Your task to perform on an android device: open app "Google Drive" (install if not already installed) Image 0: 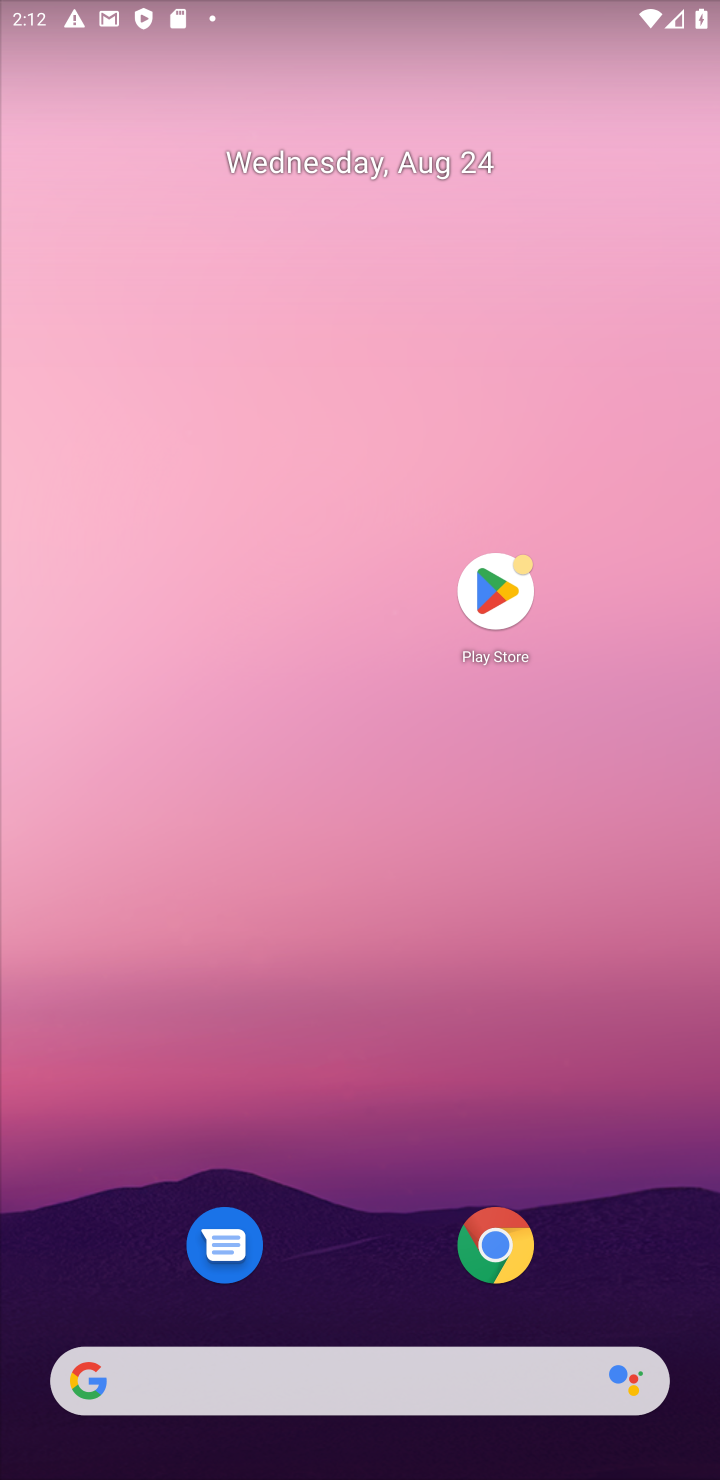
Step 0: click (508, 592)
Your task to perform on an android device: open app "Google Drive" (install if not already installed) Image 1: 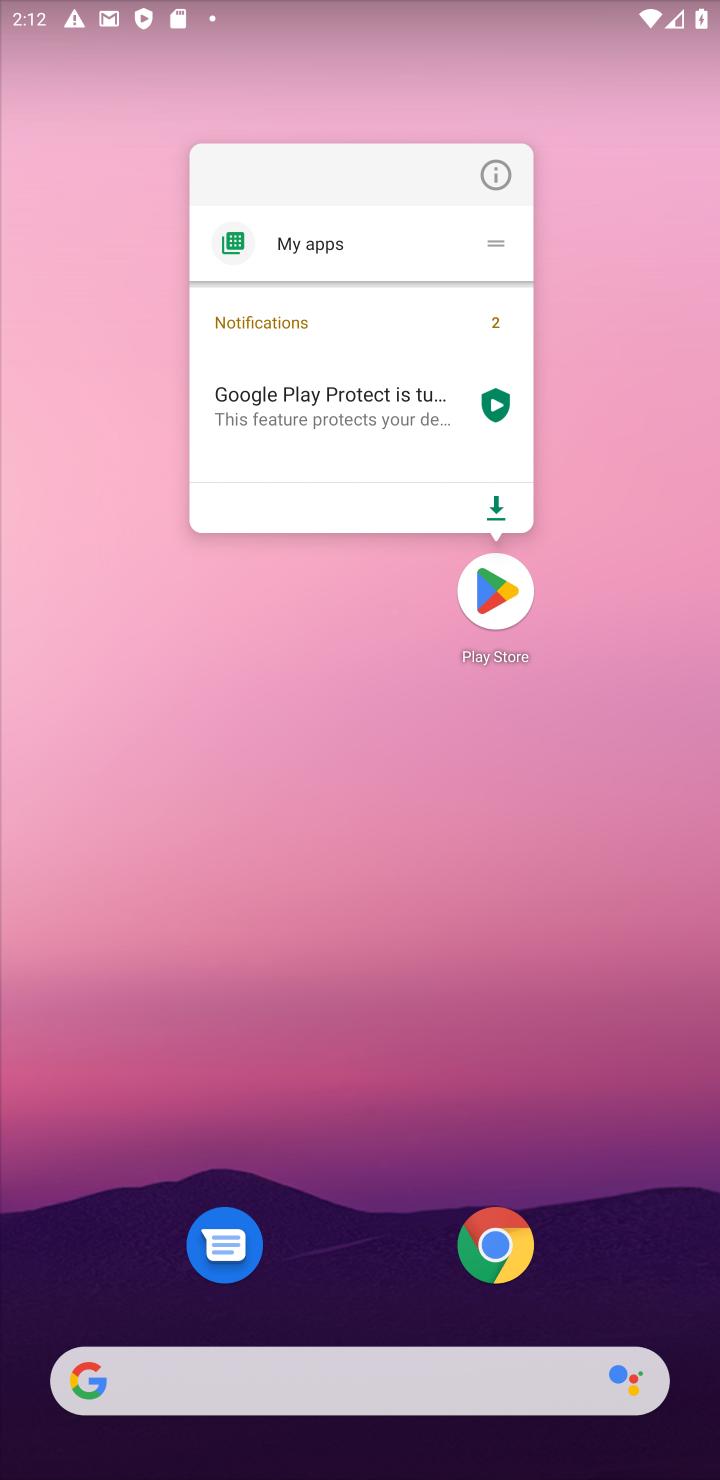
Step 1: click (508, 597)
Your task to perform on an android device: open app "Google Drive" (install if not already installed) Image 2: 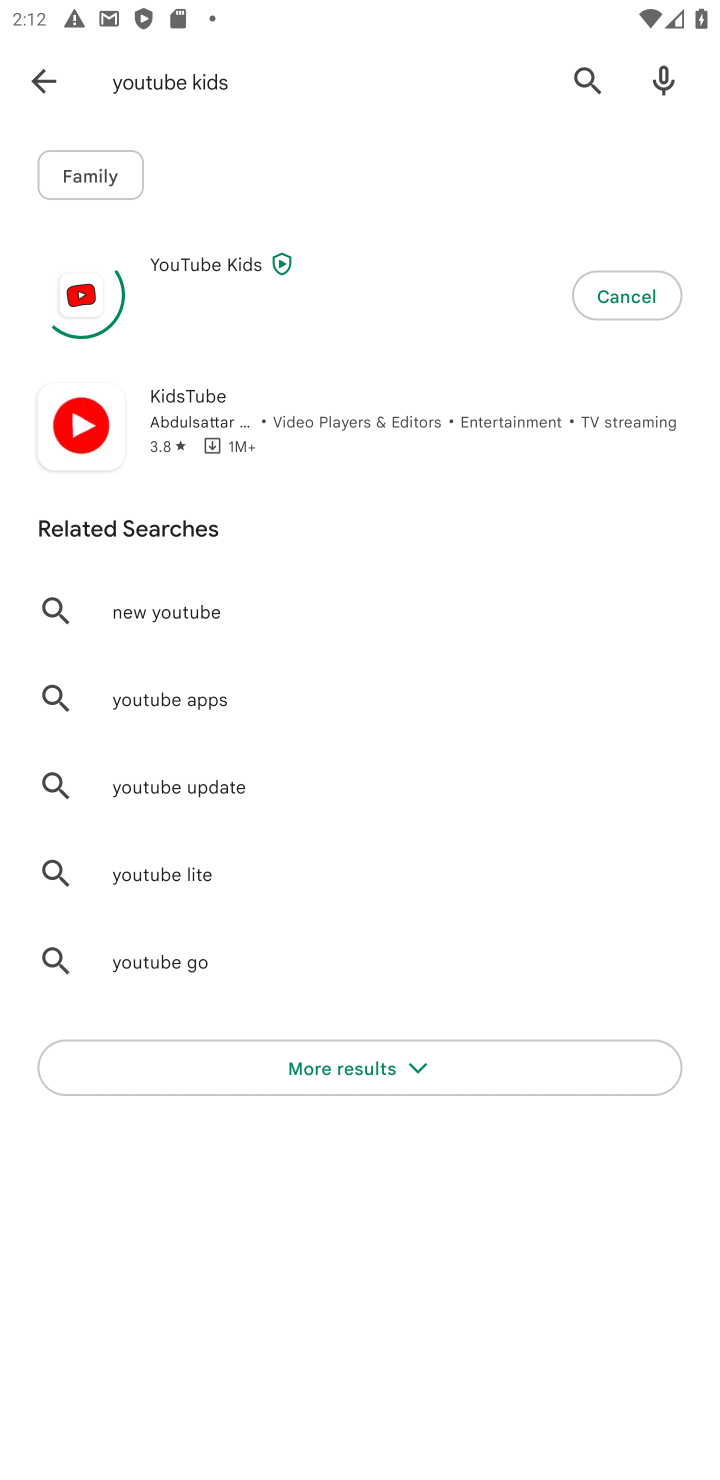
Step 2: click (581, 80)
Your task to perform on an android device: open app "Google Drive" (install if not already installed) Image 3: 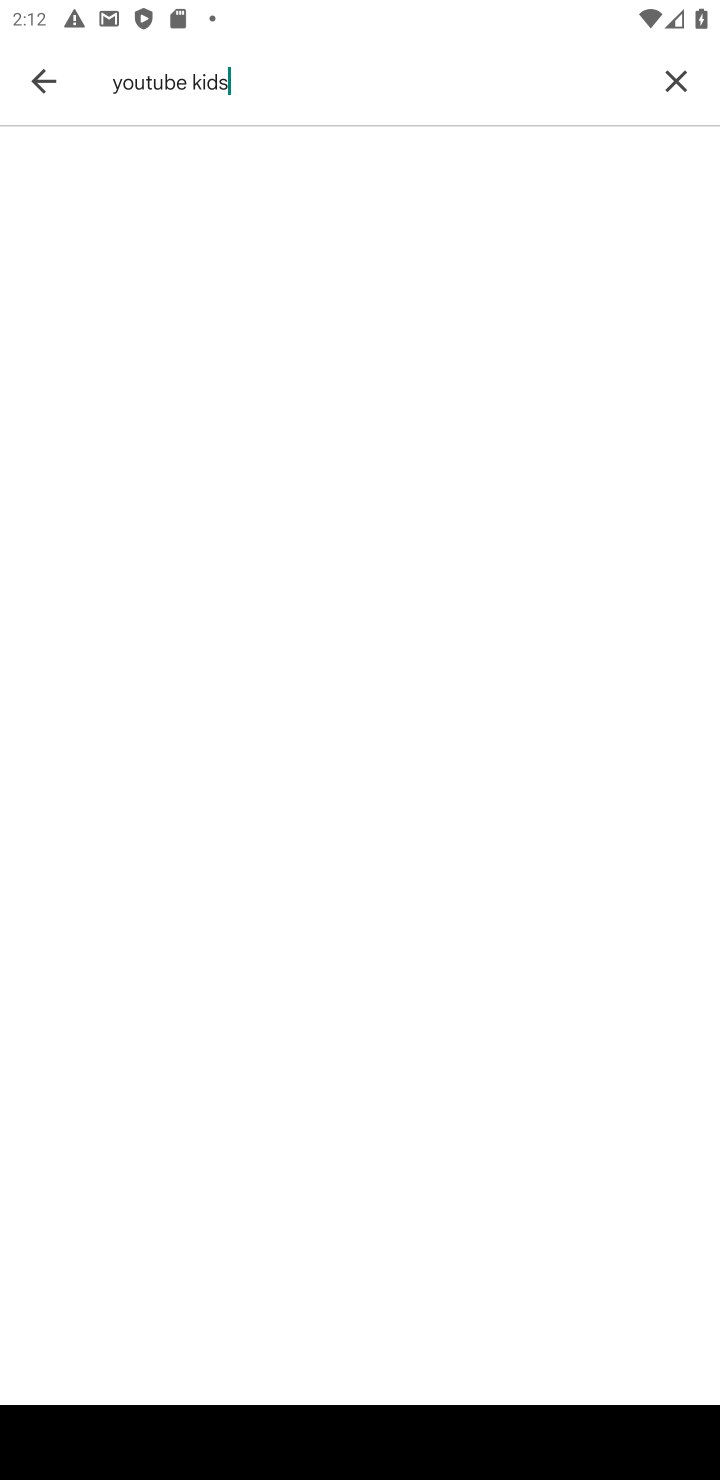
Step 3: click (671, 69)
Your task to perform on an android device: open app "Google Drive" (install if not already installed) Image 4: 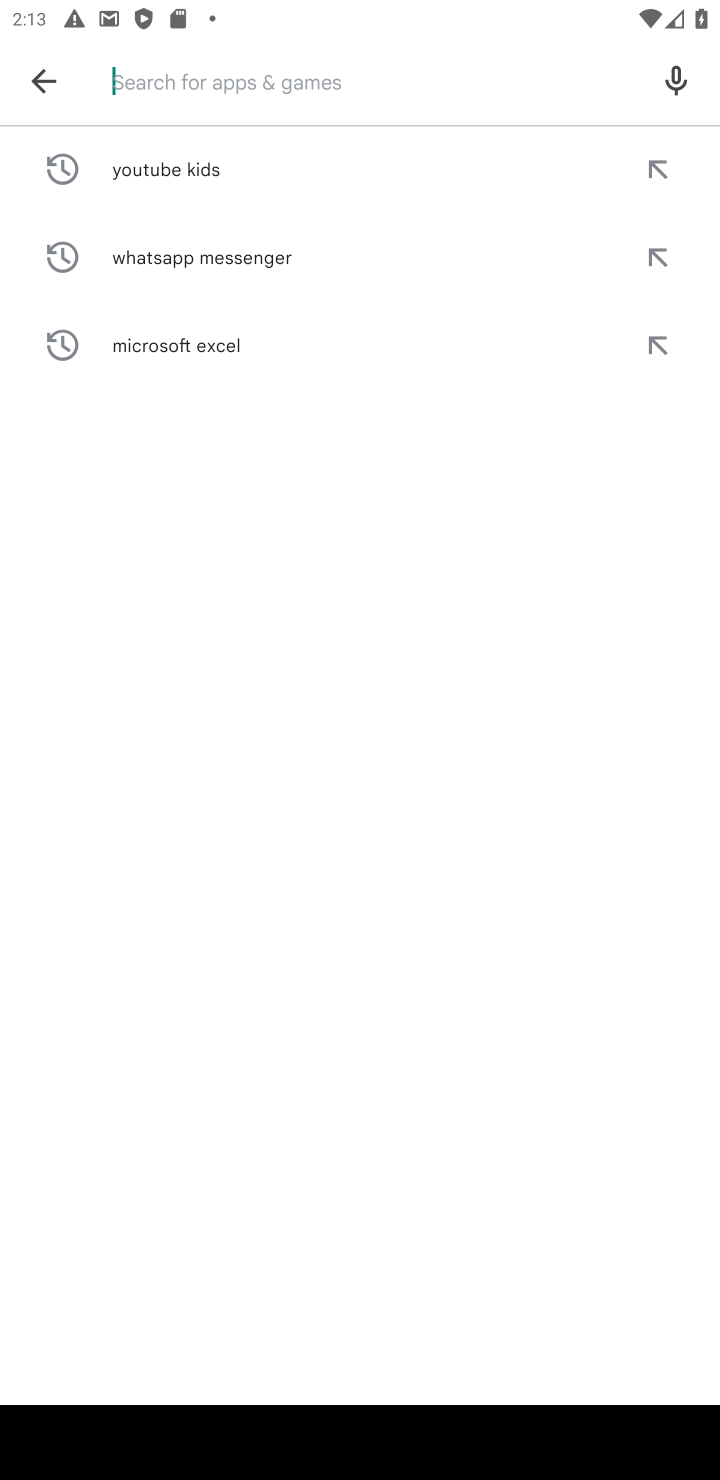
Step 4: type "Google Drive"
Your task to perform on an android device: open app "Google Drive" (install if not already installed) Image 5: 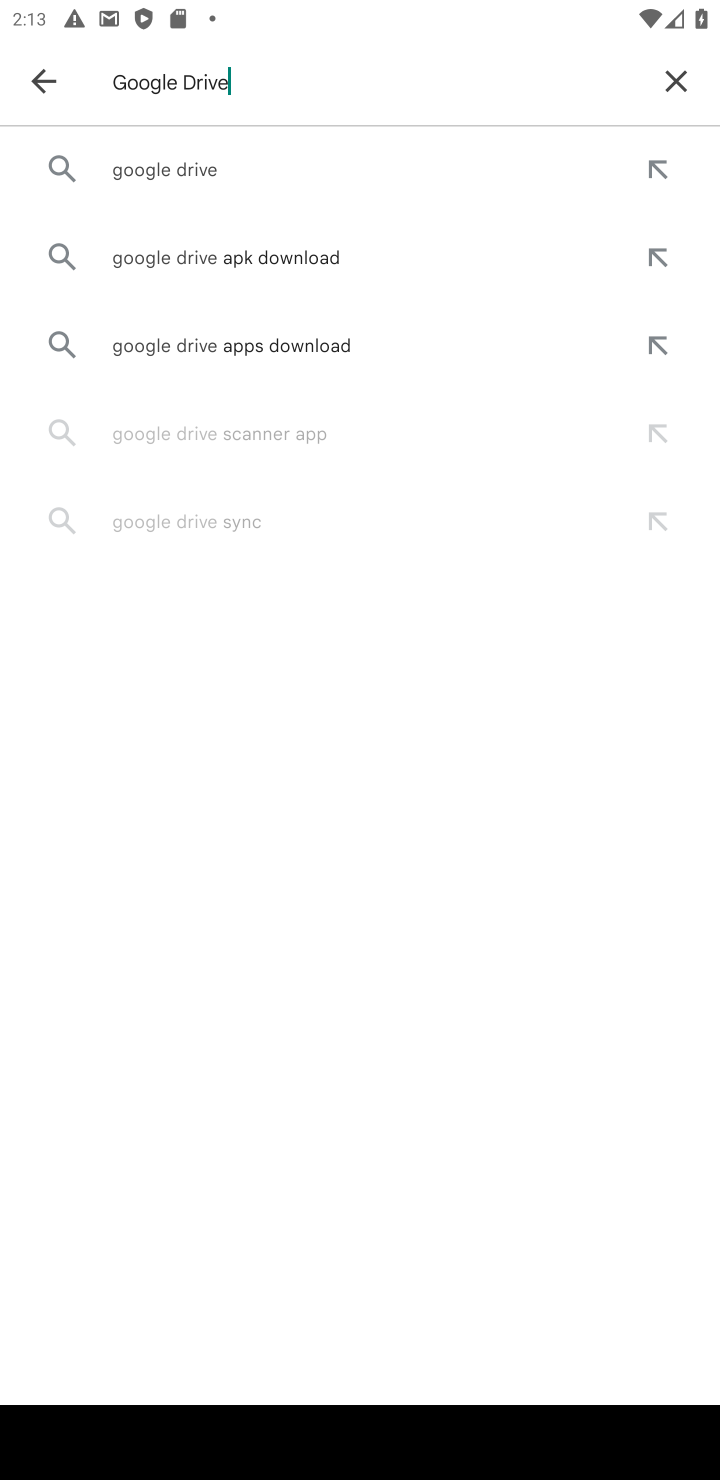
Step 5: press enter
Your task to perform on an android device: open app "Google Drive" (install if not already installed) Image 6: 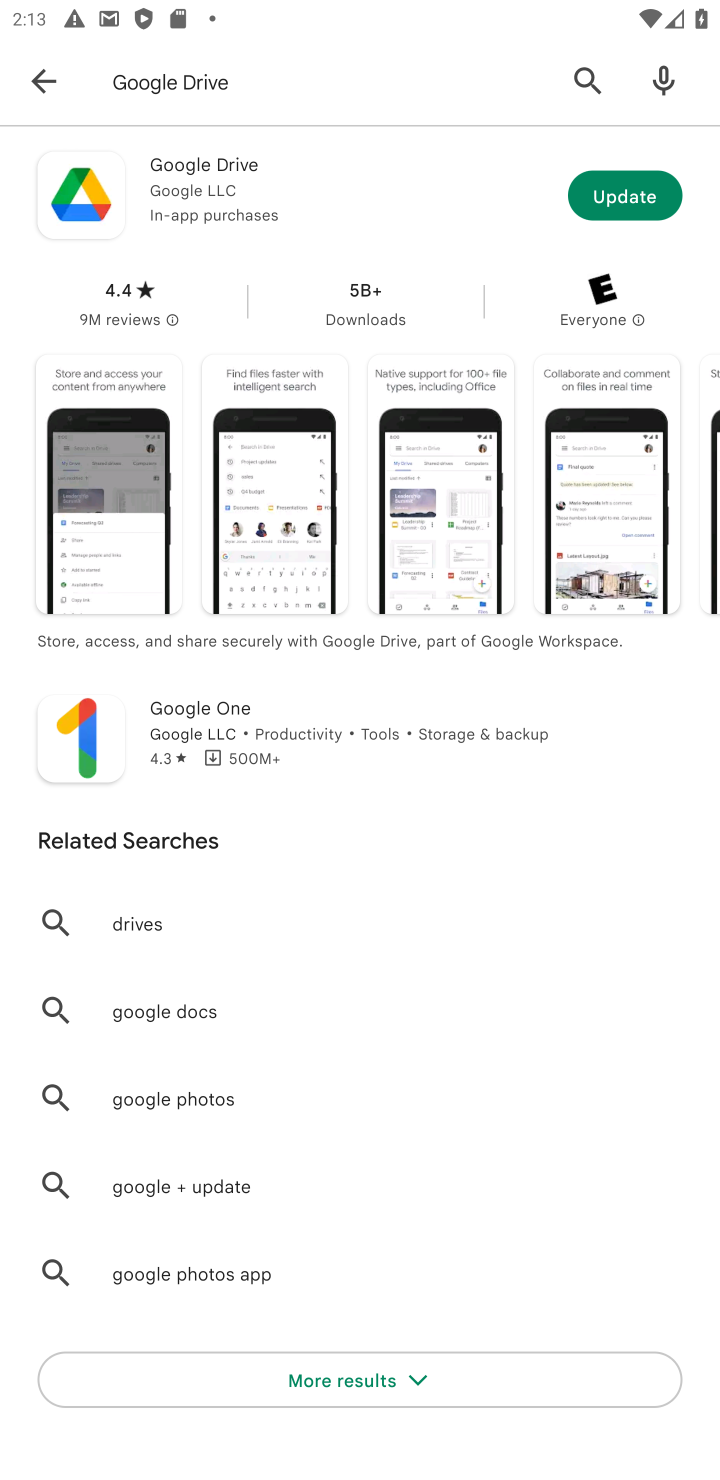
Step 6: click (193, 192)
Your task to perform on an android device: open app "Google Drive" (install if not already installed) Image 7: 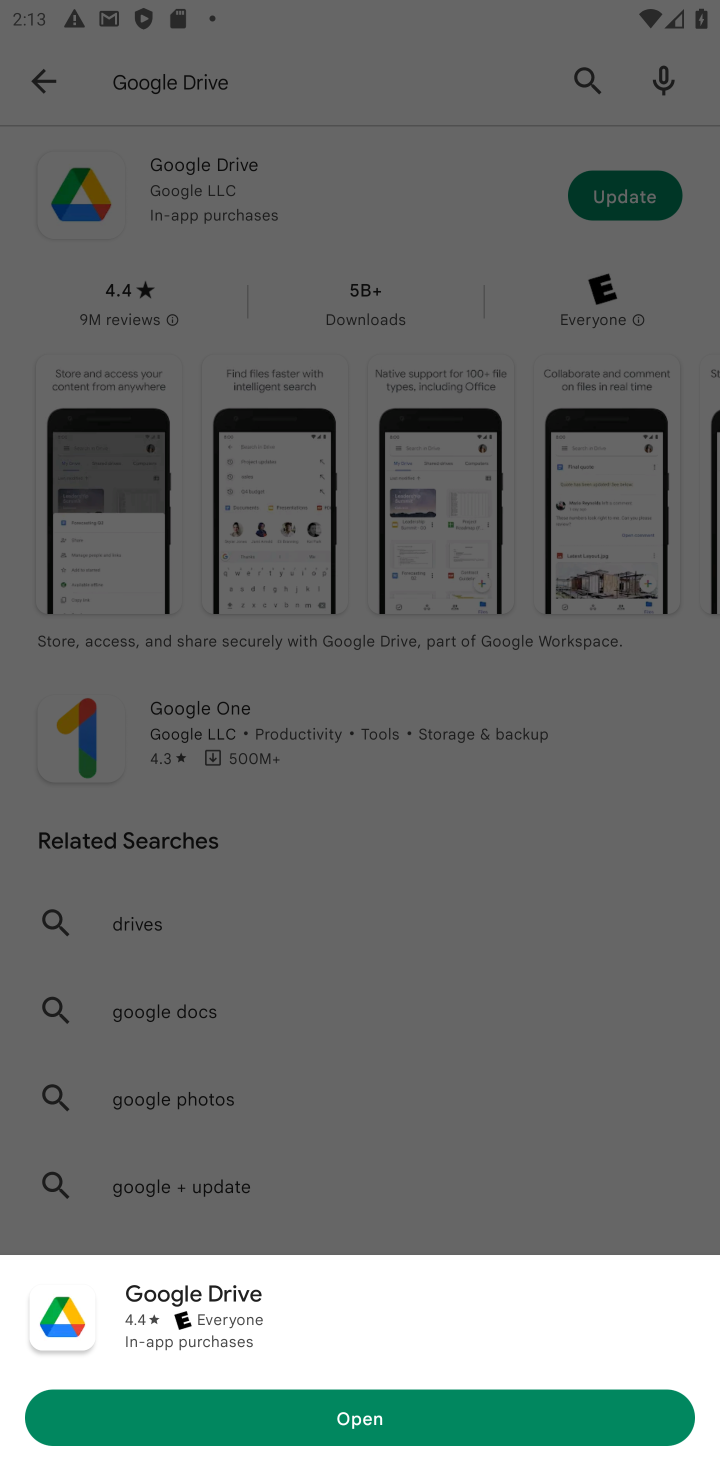
Step 7: click (335, 1421)
Your task to perform on an android device: open app "Google Drive" (install if not already installed) Image 8: 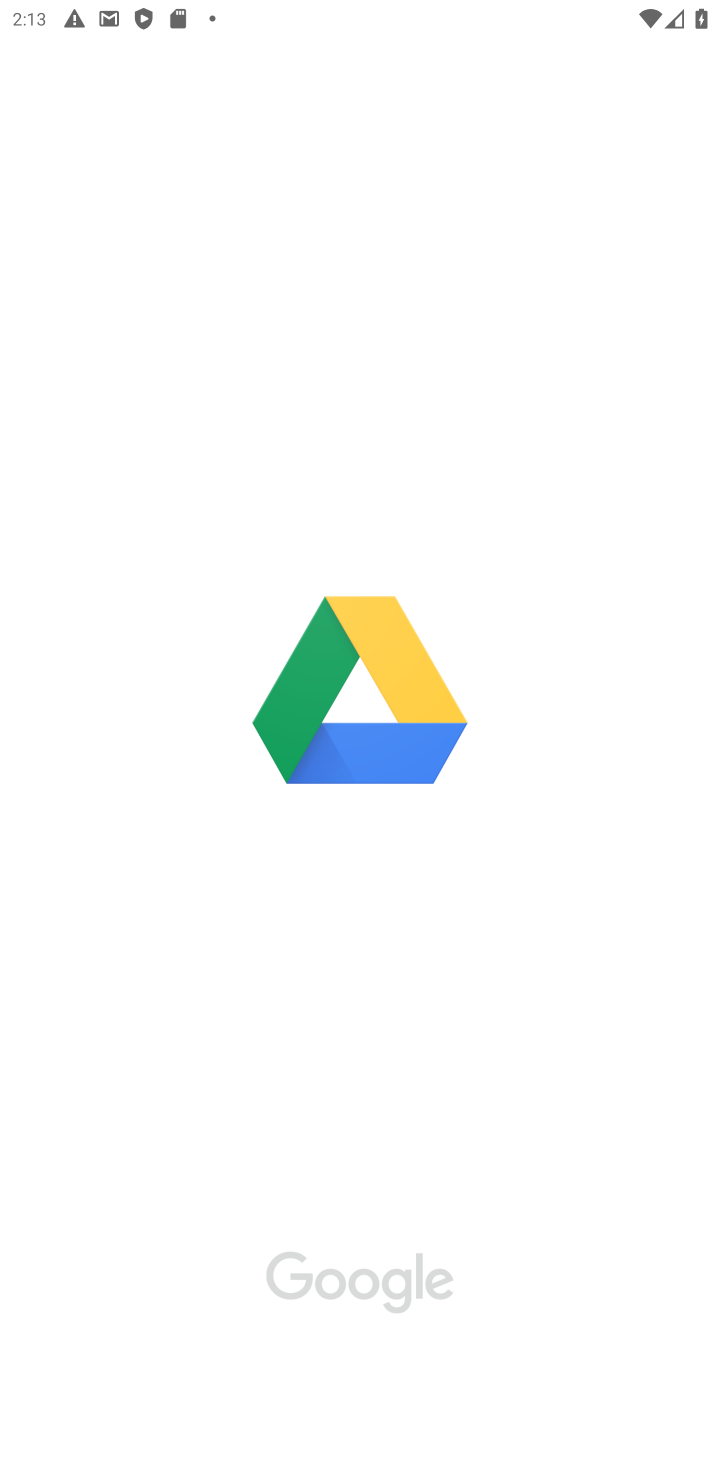
Step 8: task complete